Your task to perform on an android device: Add jbl charge 4 to the cart on target, then select checkout. Image 0: 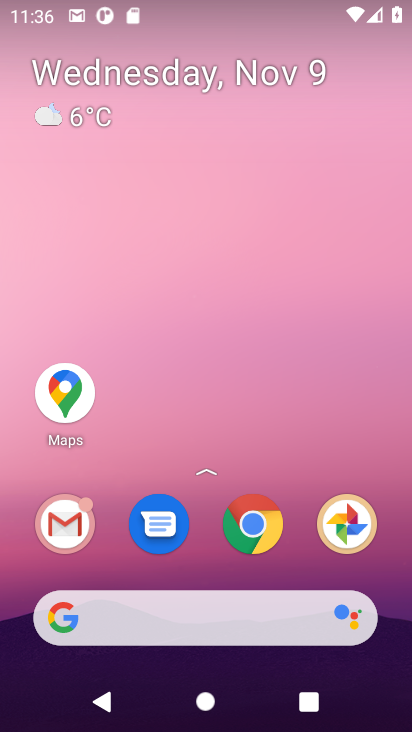
Step 0: drag from (146, 720) to (251, 731)
Your task to perform on an android device: Add jbl charge 4 to the cart on target, then select checkout. Image 1: 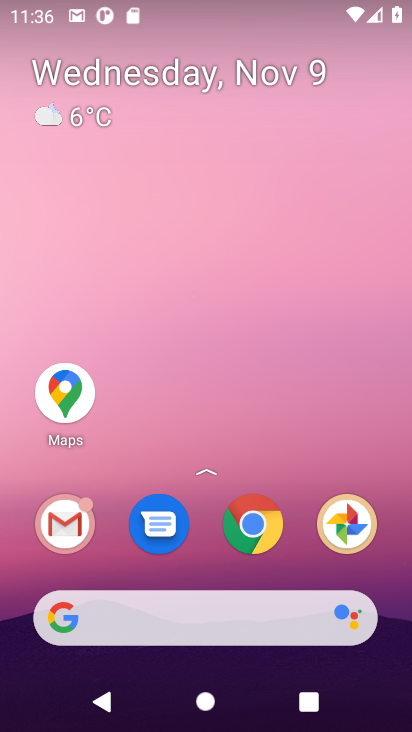
Step 1: click (217, 639)
Your task to perform on an android device: Add jbl charge 4 to the cart on target, then select checkout. Image 2: 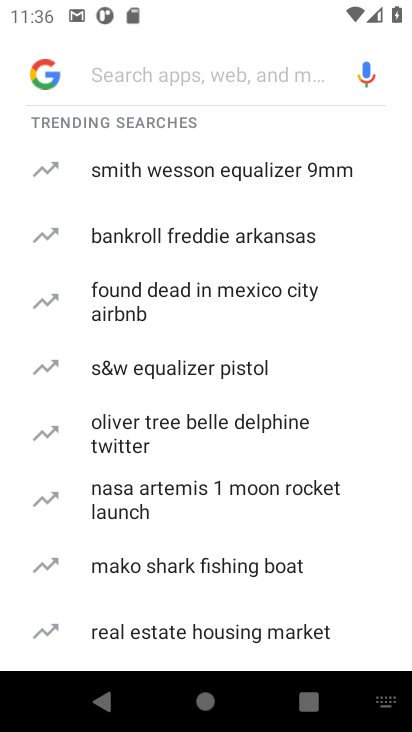
Step 2: type "jbl charge 4 on target"
Your task to perform on an android device: Add jbl charge 4 to the cart on target, then select checkout. Image 3: 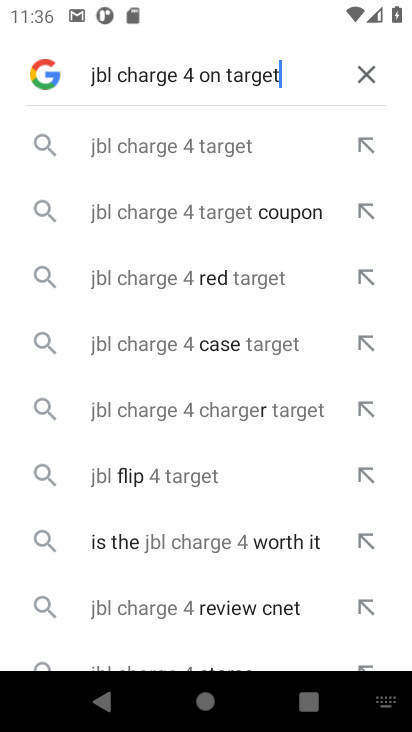
Step 3: click (201, 143)
Your task to perform on an android device: Add jbl charge 4 to the cart on target, then select checkout. Image 4: 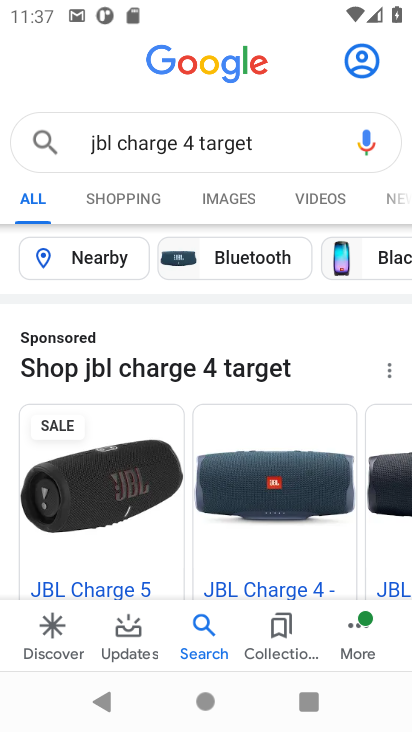
Step 4: drag from (254, 510) to (299, 57)
Your task to perform on an android device: Add jbl charge 4 to the cart on target, then select checkout. Image 5: 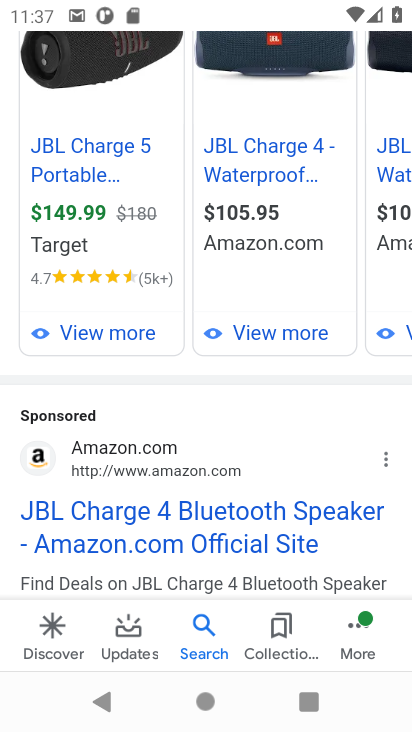
Step 5: click (105, 177)
Your task to perform on an android device: Add jbl charge 4 to the cart on target, then select checkout. Image 6: 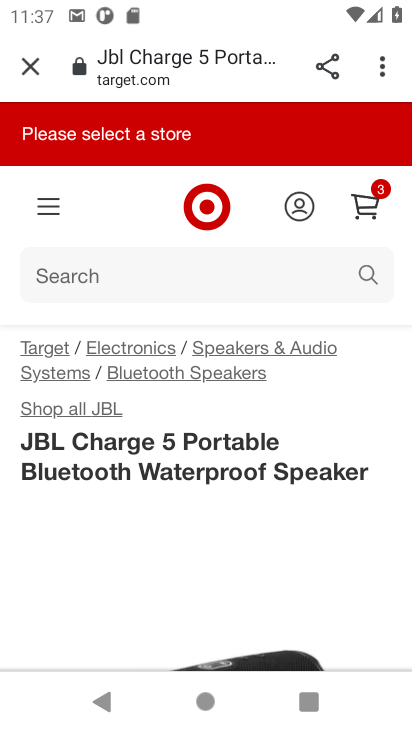
Step 6: drag from (182, 551) to (205, 262)
Your task to perform on an android device: Add jbl charge 4 to the cart on target, then select checkout. Image 7: 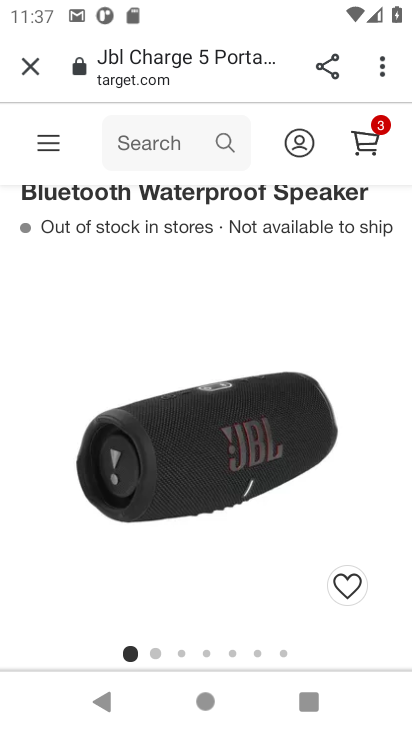
Step 7: drag from (211, 544) to (314, 218)
Your task to perform on an android device: Add jbl charge 4 to the cart on target, then select checkout. Image 8: 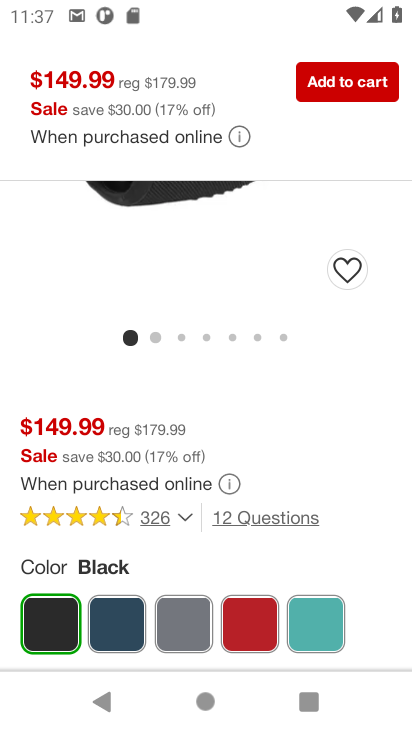
Step 8: click (345, 82)
Your task to perform on an android device: Add jbl charge 4 to the cart on target, then select checkout. Image 9: 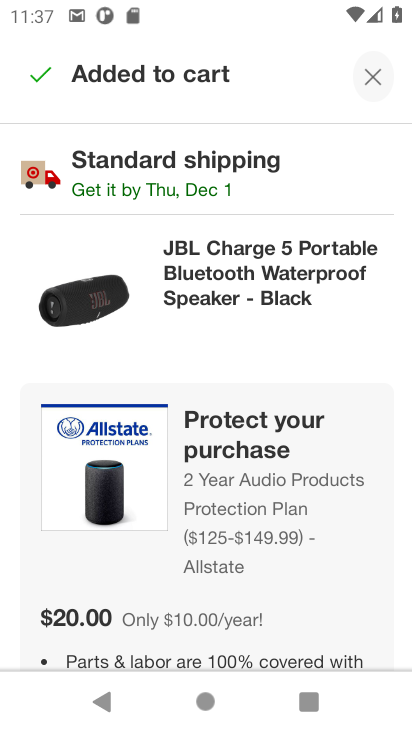
Step 9: click (375, 80)
Your task to perform on an android device: Add jbl charge 4 to the cart on target, then select checkout. Image 10: 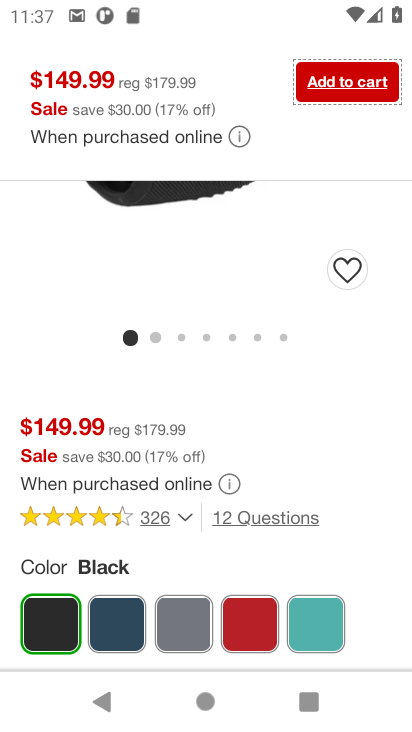
Step 10: drag from (297, 202) to (354, 638)
Your task to perform on an android device: Add jbl charge 4 to the cart on target, then select checkout. Image 11: 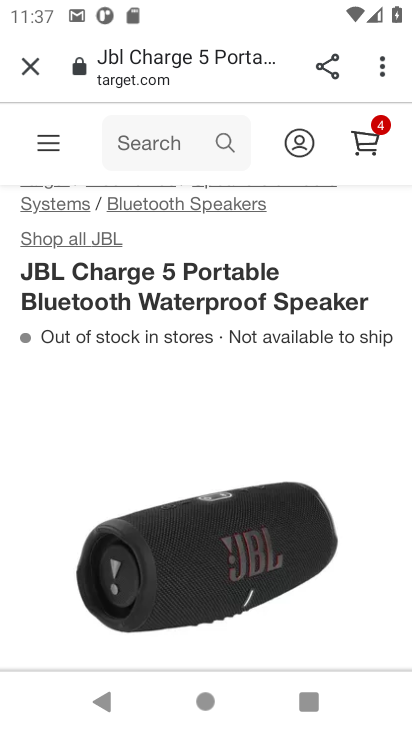
Step 11: click (370, 134)
Your task to perform on an android device: Add jbl charge 4 to the cart on target, then select checkout. Image 12: 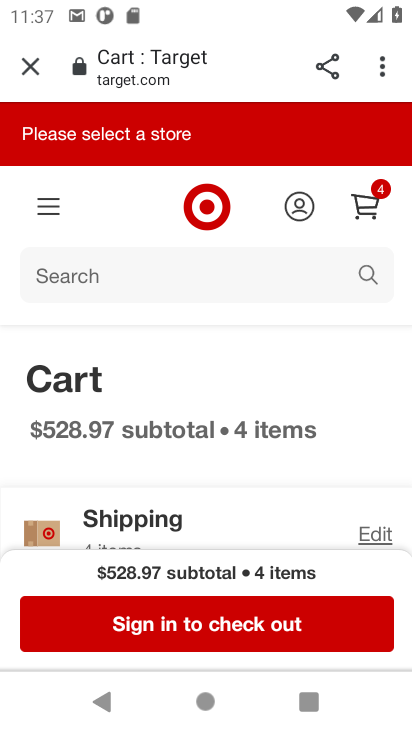
Step 12: click (232, 624)
Your task to perform on an android device: Add jbl charge 4 to the cart on target, then select checkout. Image 13: 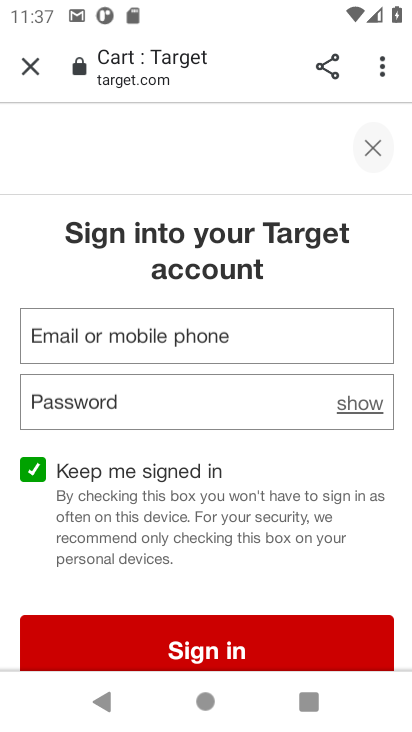
Step 13: task complete